Your task to perform on an android device: Open the phone app and click the voicemail tab. Image 0: 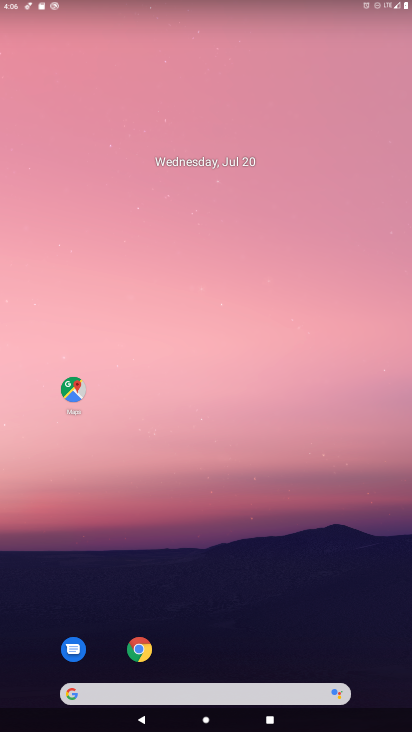
Step 0: drag from (196, 692) to (254, 227)
Your task to perform on an android device: Open the phone app and click the voicemail tab. Image 1: 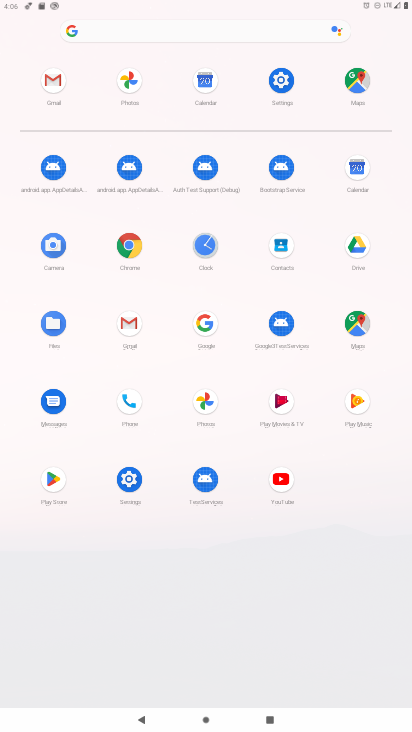
Step 1: click (126, 403)
Your task to perform on an android device: Open the phone app and click the voicemail tab. Image 2: 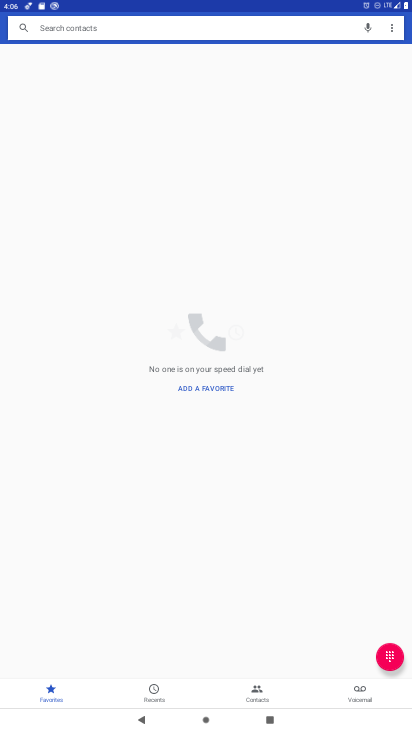
Step 2: click (360, 690)
Your task to perform on an android device: Open the phone app and click the voicemail tab. Image 3: 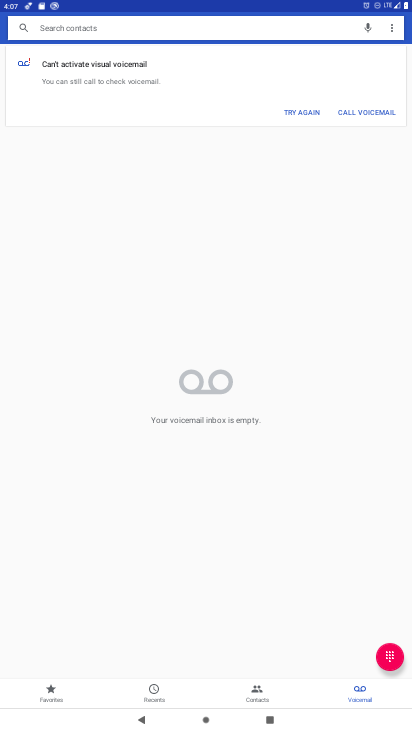
Step 3: task complete